Your task to perform on an android device: Is it going to rain today? Image 0: 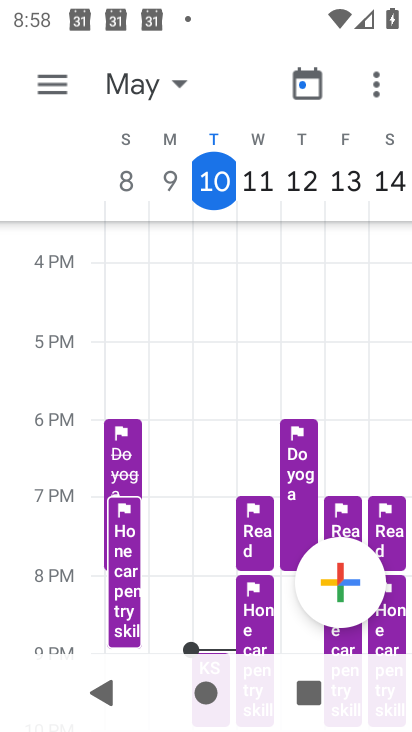
Step 0: press home button
Your task to perform on an android device: Is it going to rain today? Image 1: 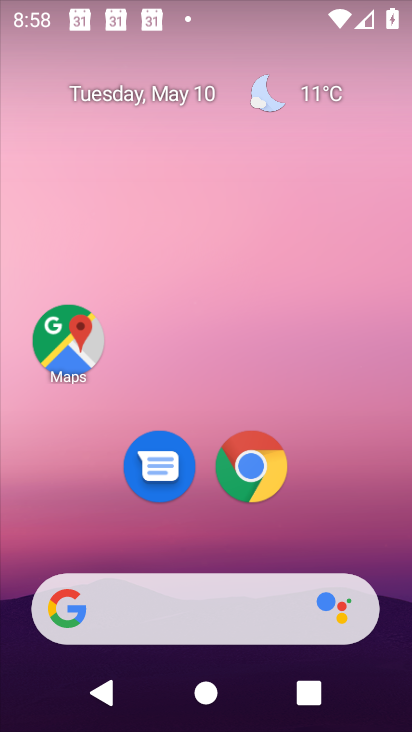
Step 1: click (292, 97)
Your task to perform on an android device: Is it going to rain today? Image 2: 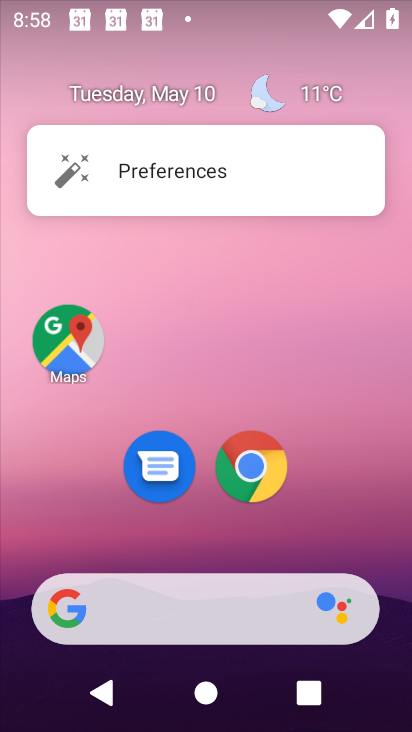
Step 2: click (307, 86)
Your task to perform on an android device: Is it going to rain today? Image 3: 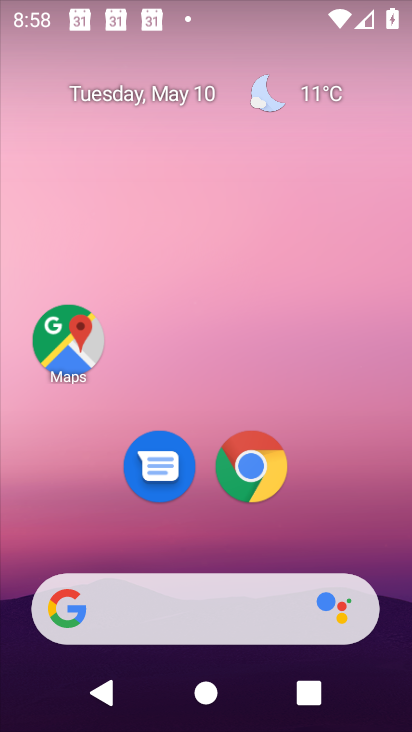
Step 3: click (320, 90)
Your task to perform on an android device: Is it going to rain today? Image 4: 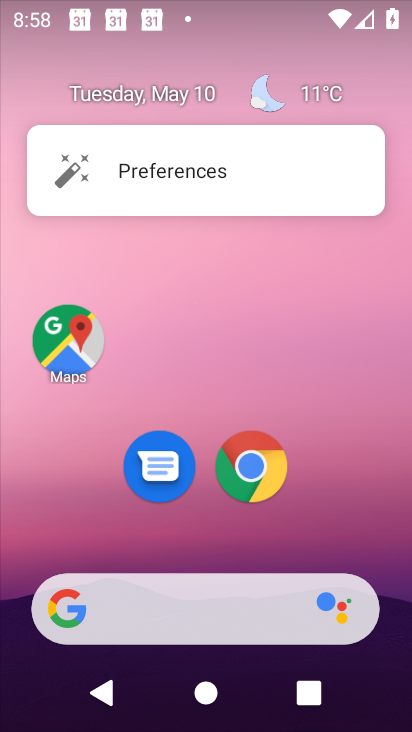
Step 4: click (314, 92)
Your task to perform on an android device: Is it going to rain today? Image 5: 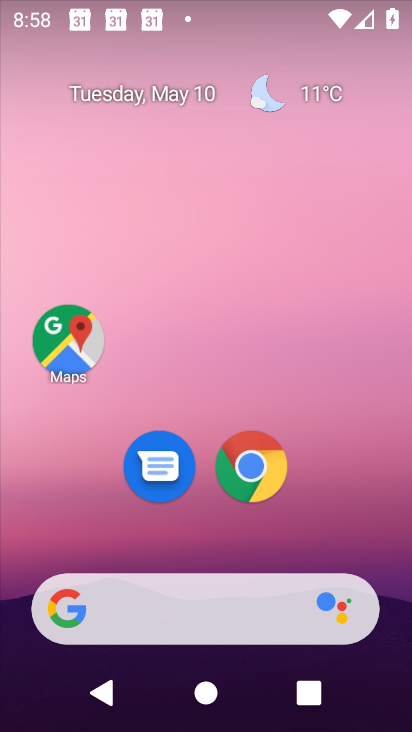
Step 5: click (314, 92)
Your task to perform on an android device: Is it going to rain today? Image 6: 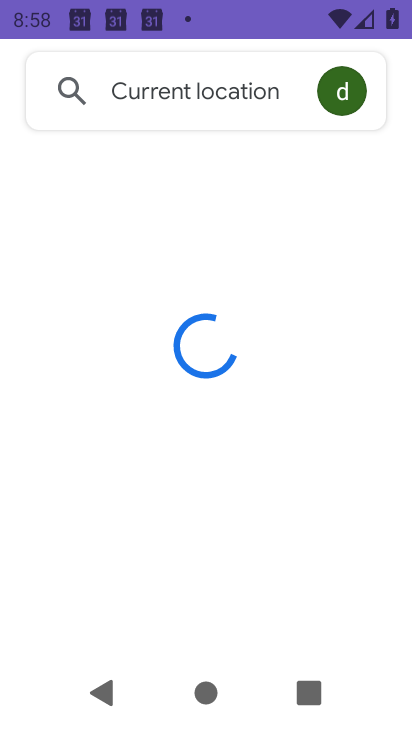
Step 6: click (314, 92)
Your task to perform on an android device: Is it going to rain today? Image 7: 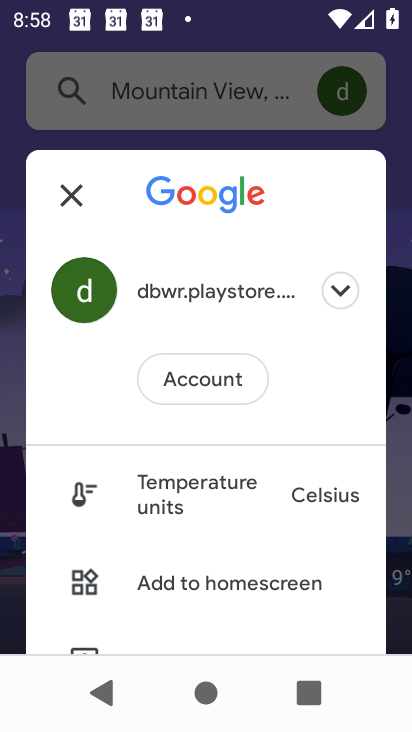
Step 7: click (56, 190)
Your task to perform on an android device: Is it going to rain today? Image 8: 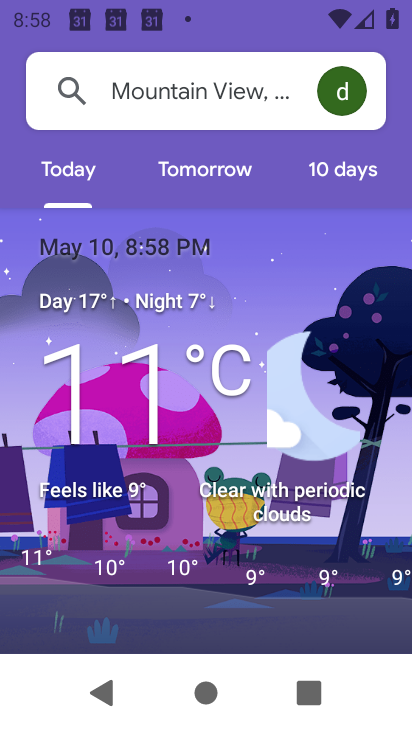
Step 8: task complete